Your task to perform on an android device: Open calendar and show me the third week of next month Image 0: 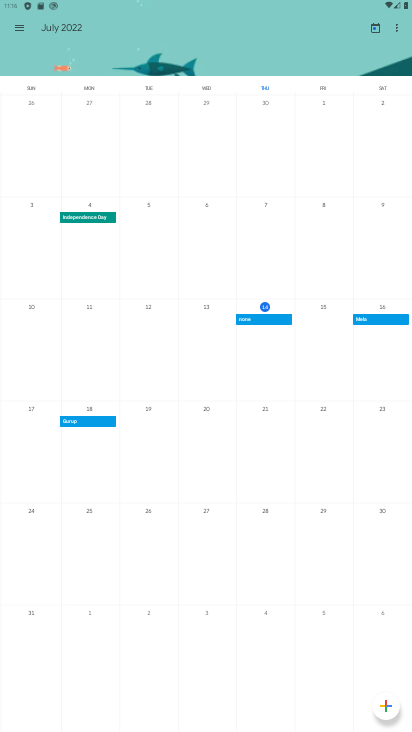
Step 0: press home button
Your task to perform on an android device: Open calendar and show me the third week of next month Image 1: 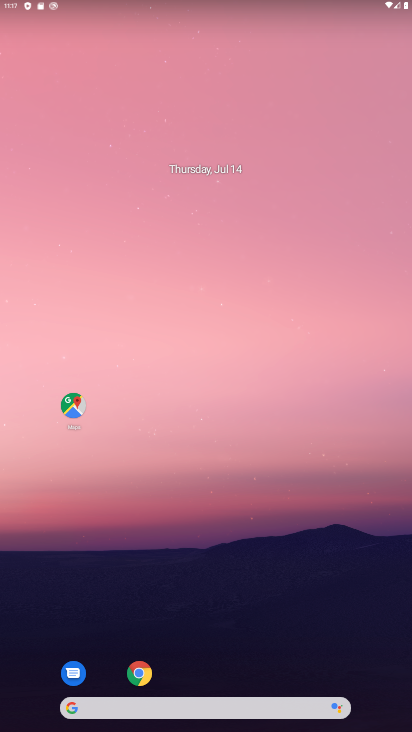
Step 1: drag from (247, 658) to (191, 187)
Your task to perform on an android device: Open calendar and show me the third week of next month Image 2: 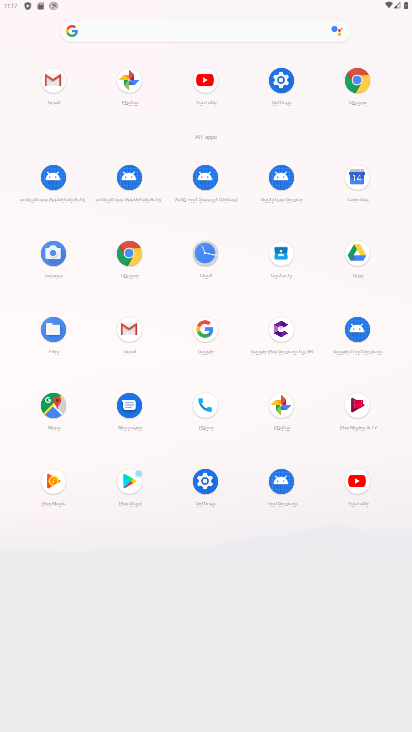
Step 2: click (352, 181)
Your task to perform on an android device: Open calendar and show me the third week of next month Image 3: 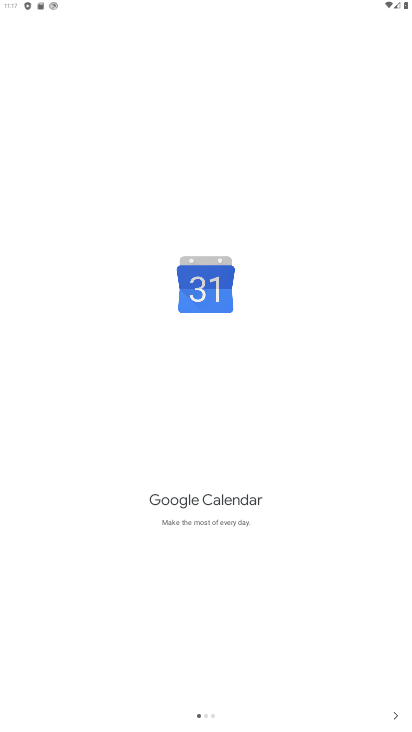
Step 3: click (398, 721)
Your task to perform on an android device: Open calendar and show me the third week of next month Image 4: 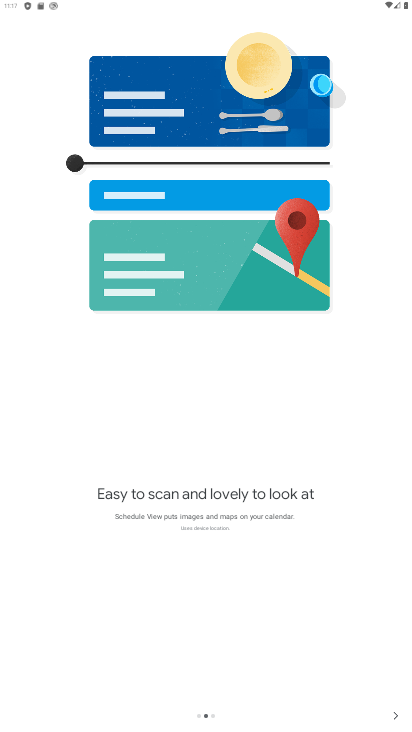
Step 4: click (398, 721)
Your task to perform on an android device: Open calendar and show me the third week of next month Image 5: 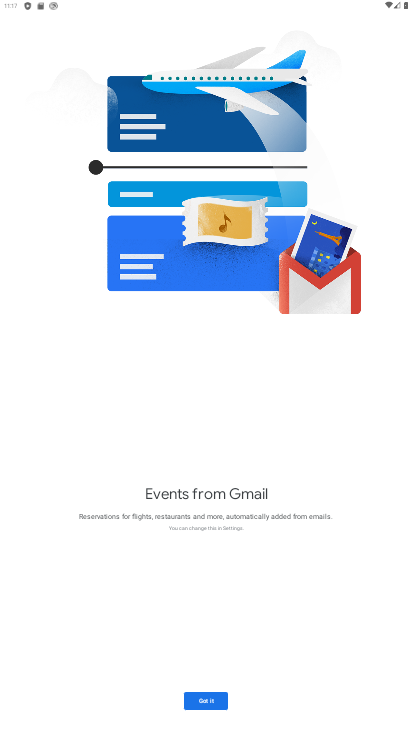
Step 5: click (220, 704)
Your task to perform on an android device: Open calendar and show me the third week of next month Image 6: 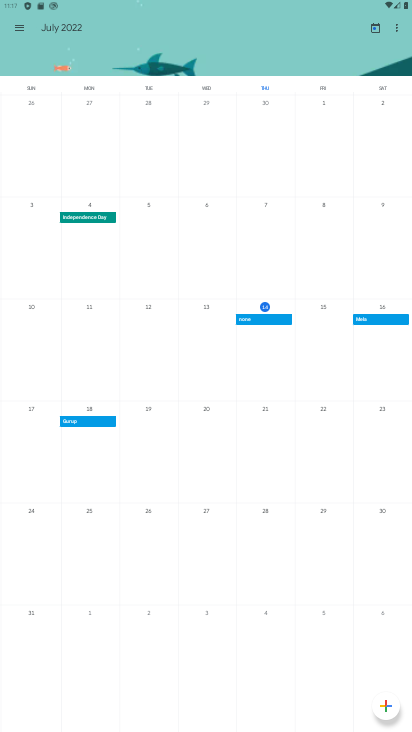
Step 6: click (67, 32)
Your task to perform on an android device: Open calendar and show me the third week of next month Image 7: 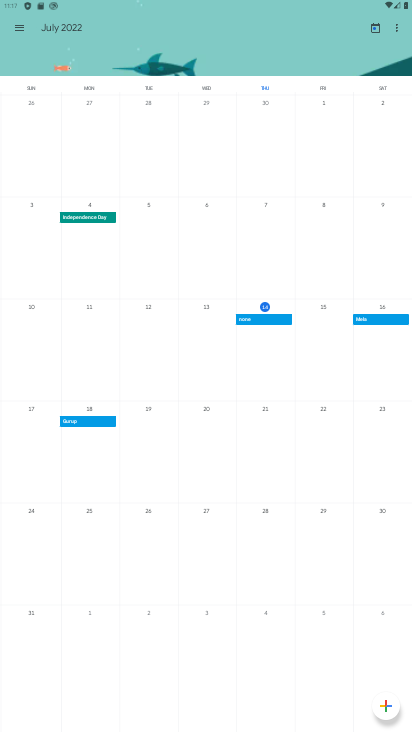
Step 7: click (24, 34)
Your task to perform on an android device: Open calendar and show me the third week of next month Image 8: 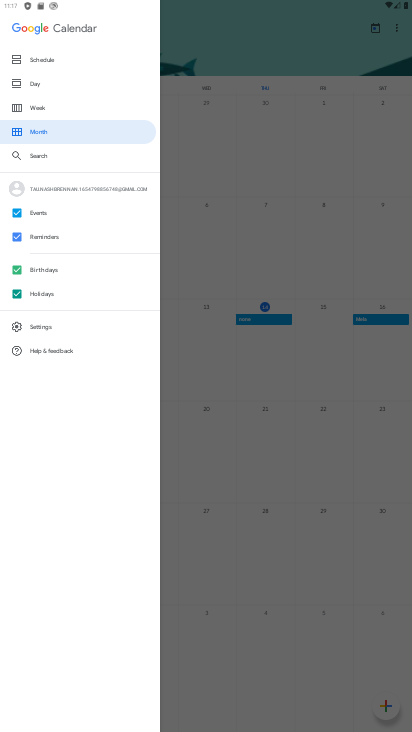
Step 8: click (45, 105)
Your task to perform on an android device: Open calendar and show me the third week of next month Image 9: 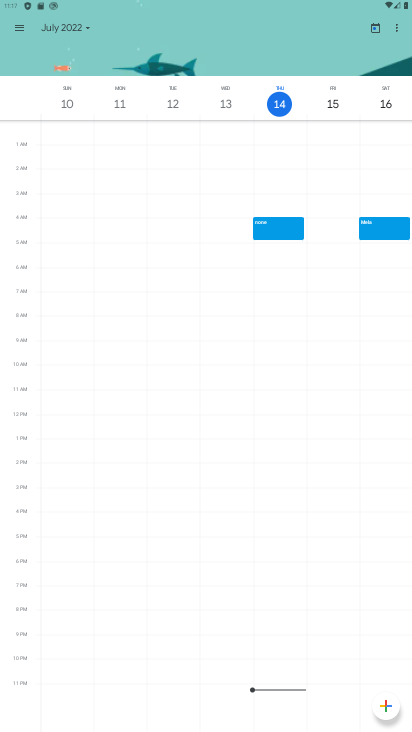
Step 9: click (82, 26)
Your task to perform on an android device: Open calendar and show me the third week of next month Image 10: 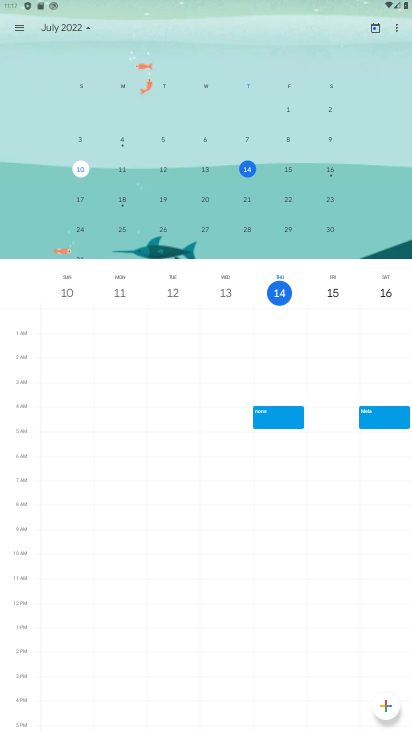
Step 10: drag from (320, 206) to (5, 146)
Your task to perform on an android device: Open calendar and show me the third week of next month Image 11: 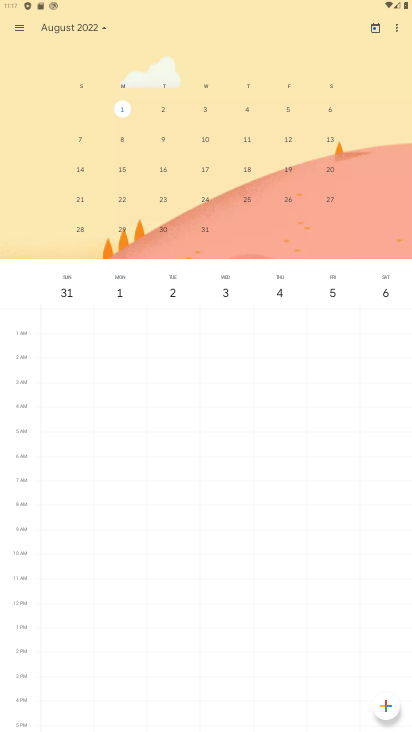
Step 11: click (117, 170)
Your task to perform on an android device: Open calendar and show me the third week of next month Image 12: 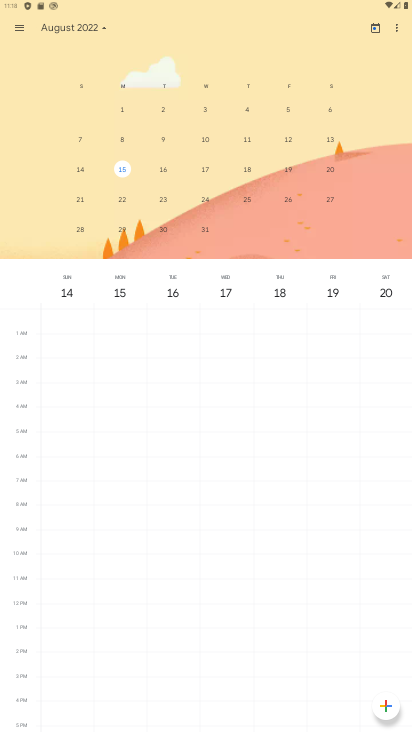
Step 12: task complete